Your task to perform on an android device: visit the assistant section in the google photos Image 0: 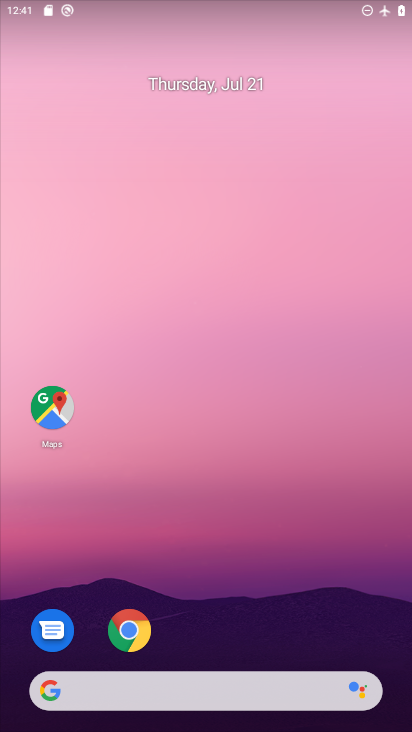
Step 0: drag from (405, 580) to (347, 188)
Your task to perform on an android device: visit the assistant section in the google photos Image 1: 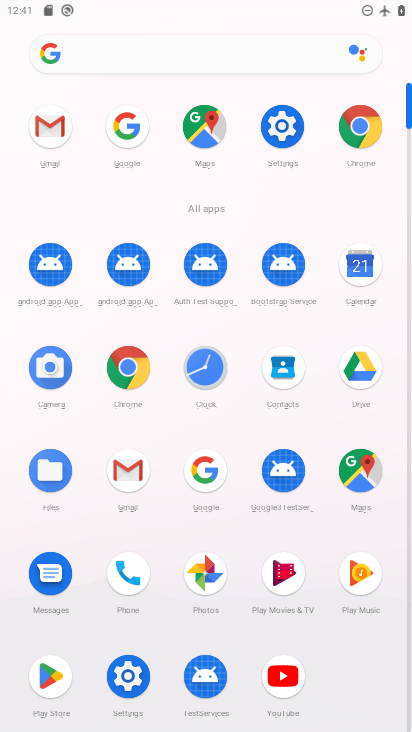
Step 1: click (204, 580)
Your task to perform on an android device: visit the assistant section in the google photos Image 2: 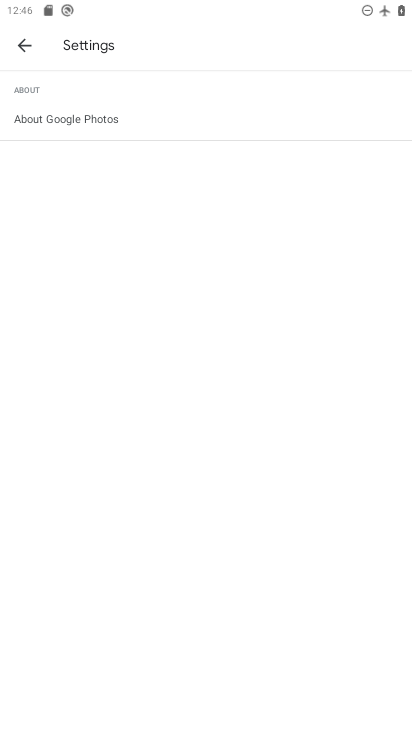
Step 2: press home button
Your task to perform on an android device: visit the assistant section in the google photos Image 3: 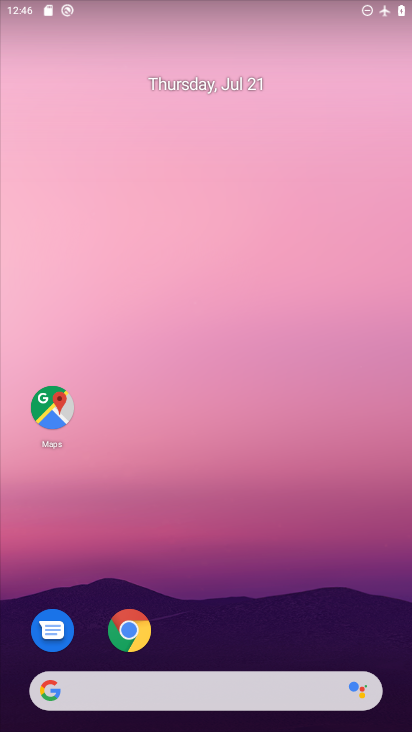
Step 3: drag from (399, 622) to (330, 167)
Your task to perform on an android device: visit the assistant section in the google photos Image 4: 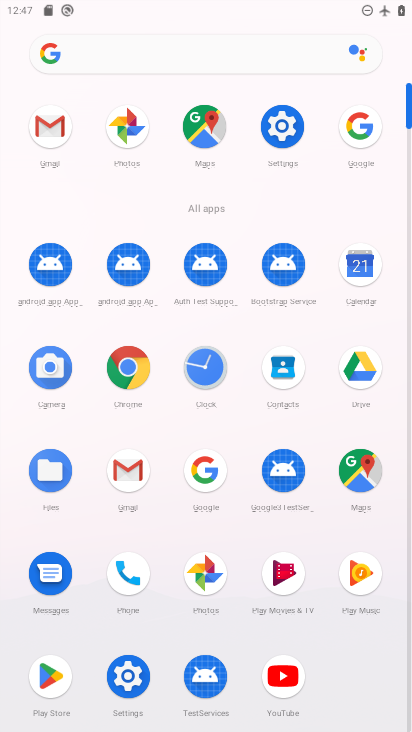
Step 4: click (208, 570)
Your task to perform on an android device: visit the assistant section in the google photos Image 5: 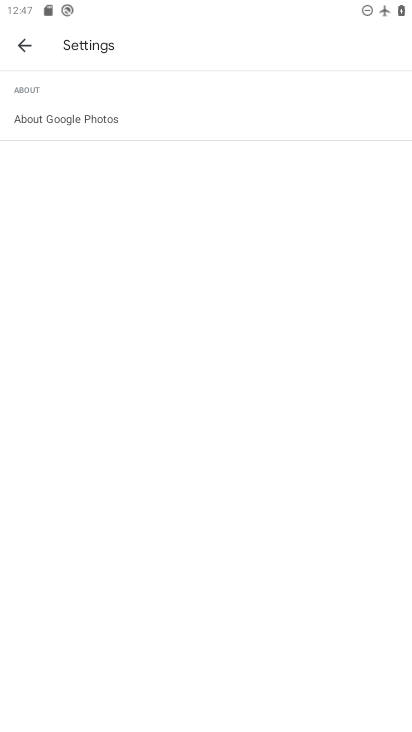
Step 5: press home button
Your task to perform on an android device: visit the assistant section in the google photos Image 6: 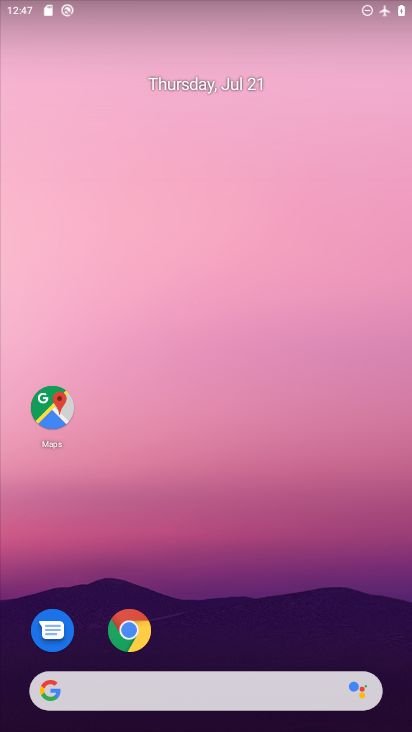
Step 6: drag from (395, 688) to (332, 66)
Your task to perform on an android device: visit the assistant section in the google photos Image 7: 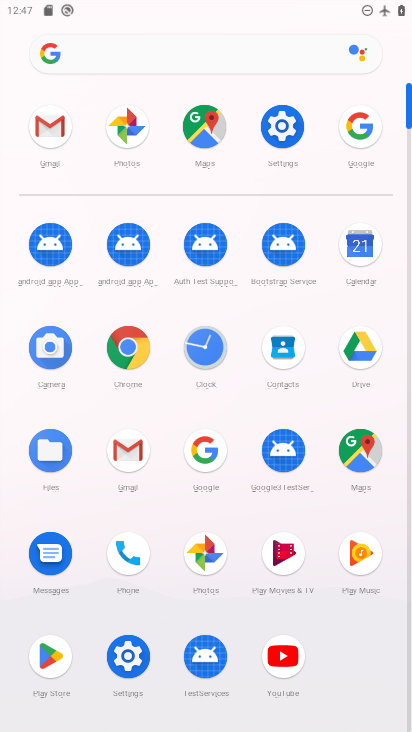
Step 7: click (214, 549)
Your task to perform on an android device: visit the assistant section in the google photos Image 8: 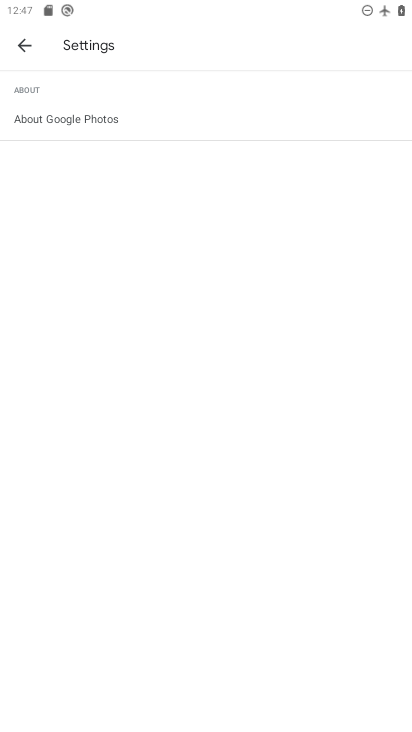
Step 8: click (19, 51)
Your task to perform on an android device: visit the assistant section in the google photos Image 9: 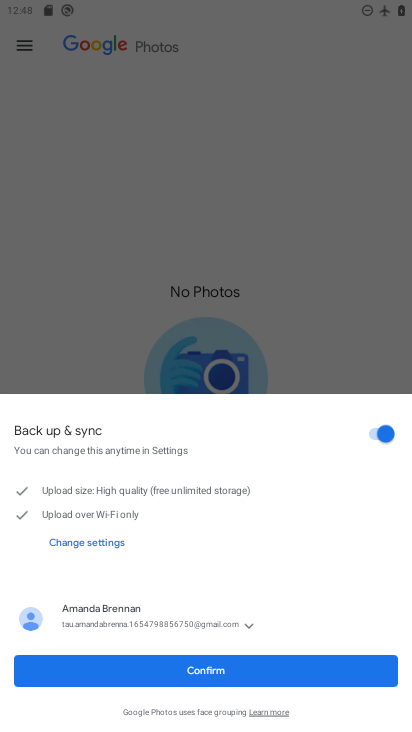
Step 9: click (271, 672)
Your task to perform on an android device: visit the assistant section in the google photos Image 10: 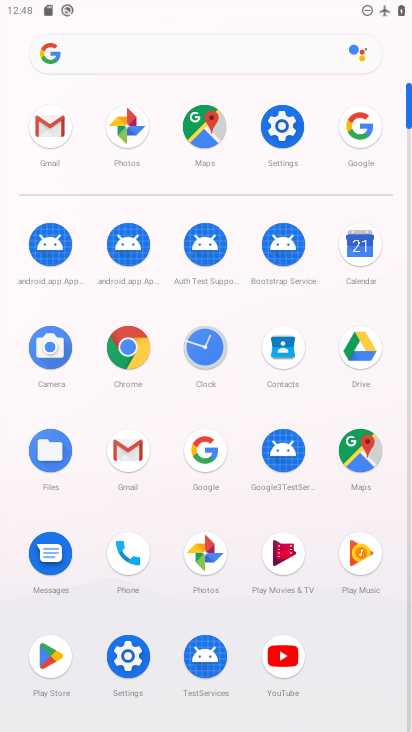
Step 10: click (203, 564)
Your task to perform on an android device: visit the assistant section in the google photos Image 11: 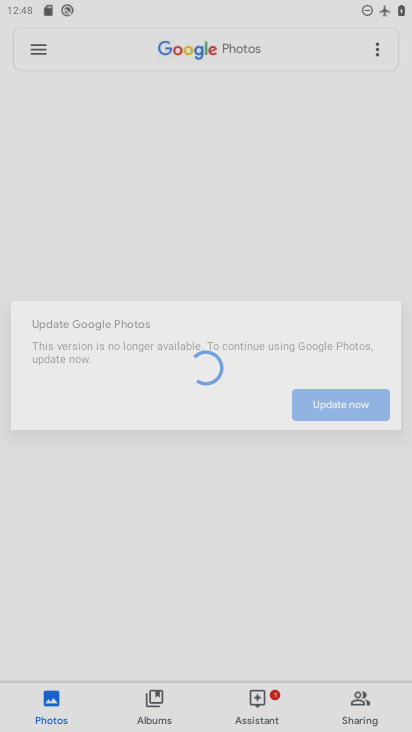
Step 11: click (259, 705)
Your task to perform on an android device: visit the assistant section in the google photos Image 12: 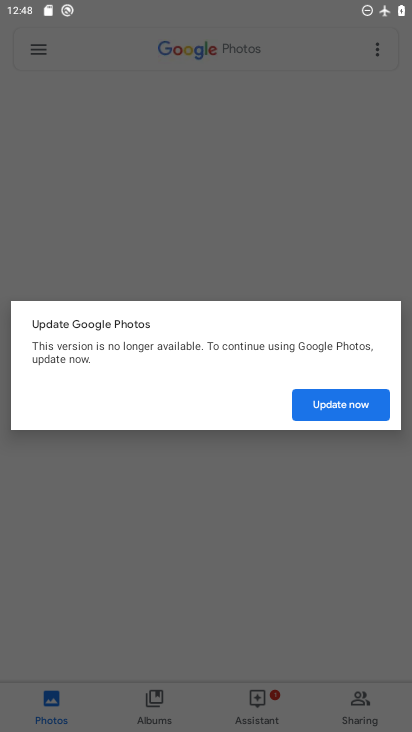
Step 12: click (320, 404)
Your task to perform on an android device: visit the assistant section in the google photos Image 13: 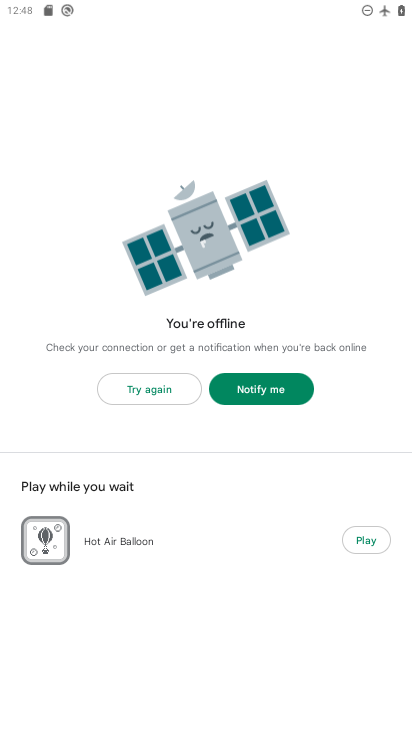
Step 13: task complete